Your task to perform on an android device: What is the recent news? Image 0: 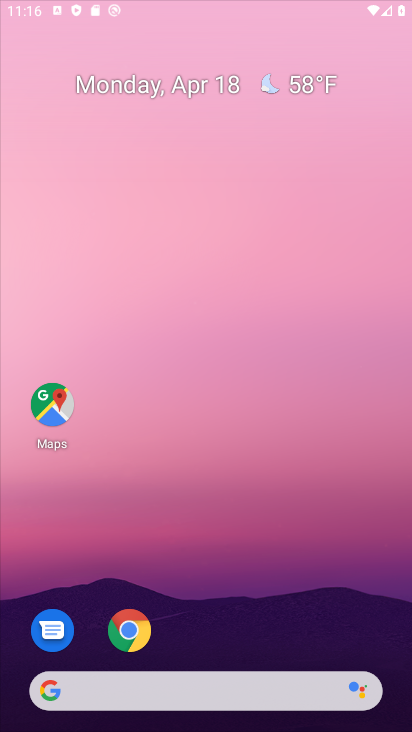
Step 0: click (124, 633)
Your task to perform on an android device: What is the recent news? Image 1: 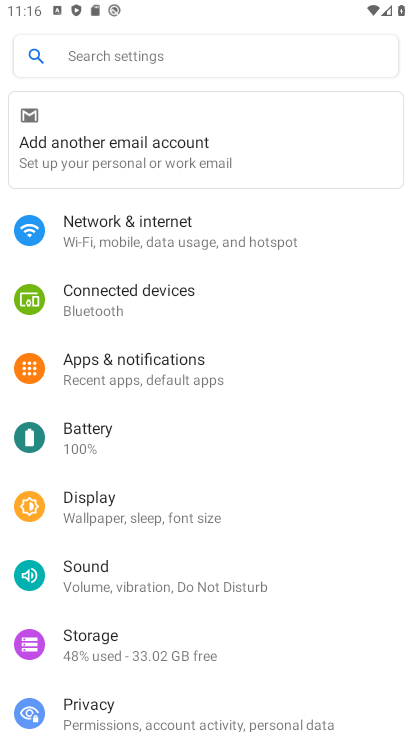
Step 1: press home button
Your task to perform on an android device: What is the recent news? Image 2: 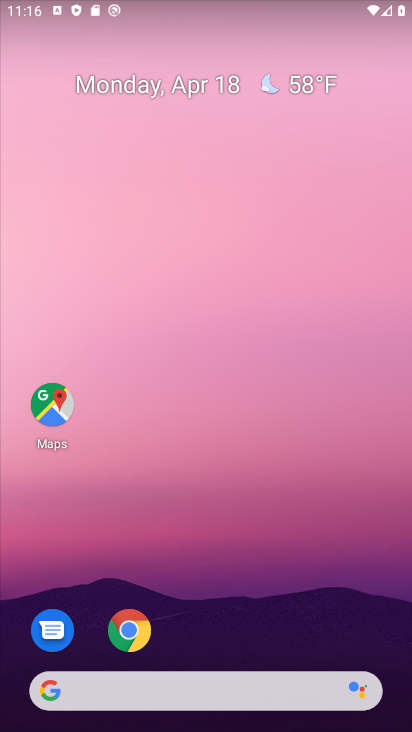
Step 2: drag from (217, 486) to (294, 194)
Your task to perform on an android device: What is the recent news? Image 3: 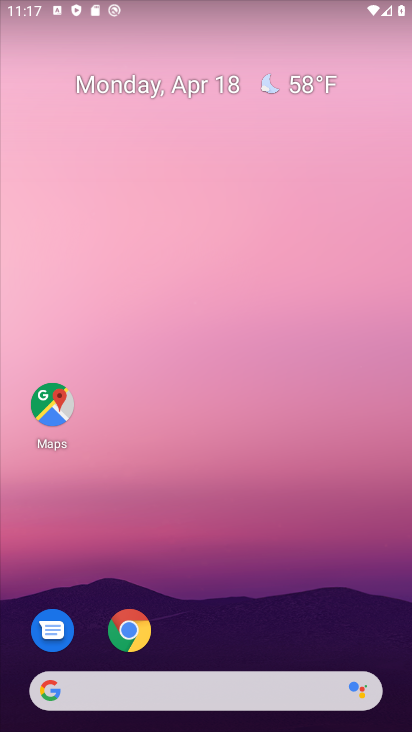
Step 3: drag from (221, 655) to (243, 202)
Your task to perform on an android device: What is the recent news? Image 4: 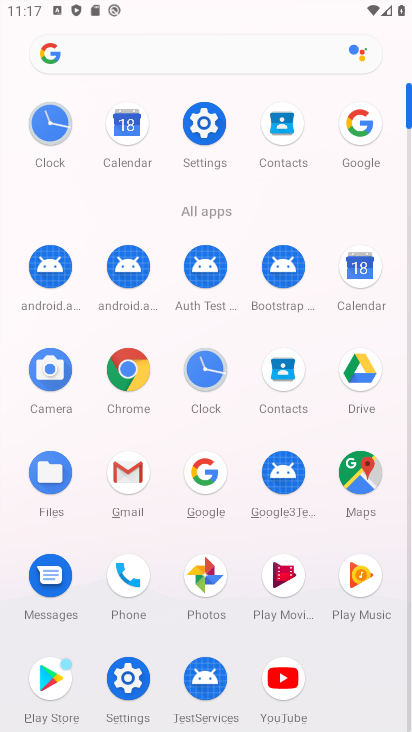
Step 4: click (349, 127)
Your task to perform on an android device: What is the recent news? Image 5: 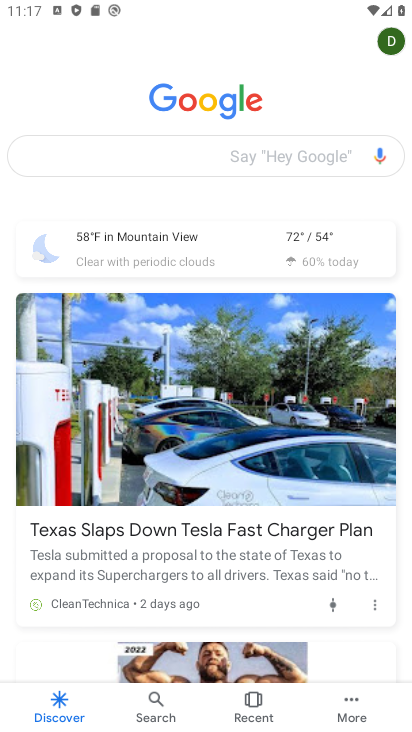
Step 5: click (253, 149)
Your task to perform on an android device: What is the recent news? Image 6: 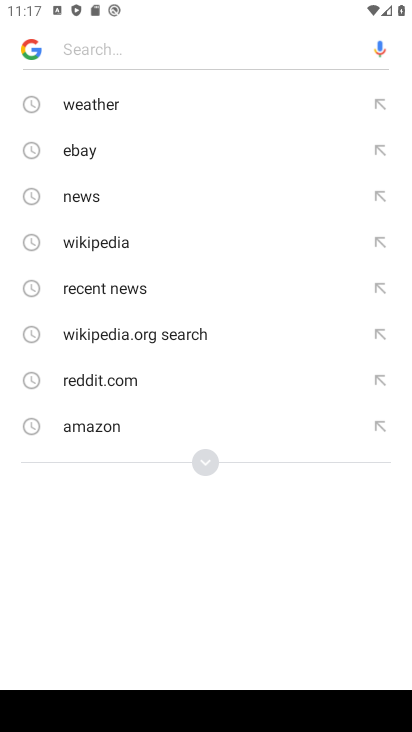
Step 6: click (100, 285)
Your task to perform on an android device: What is the recent news? Image 7: 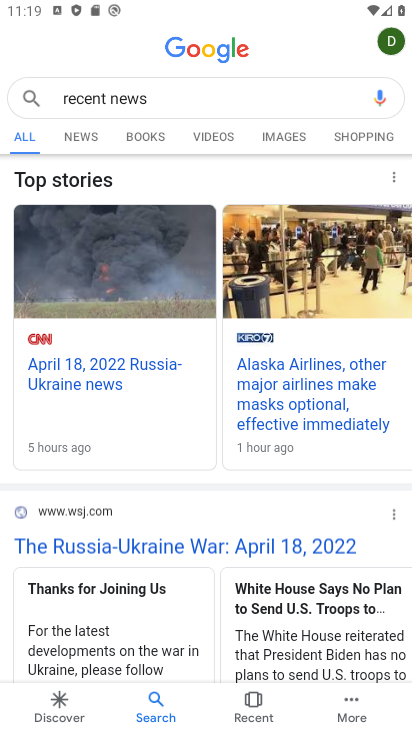
Step 7: task complete